Your task to perform on an android device: Go to Android settings Image 0: 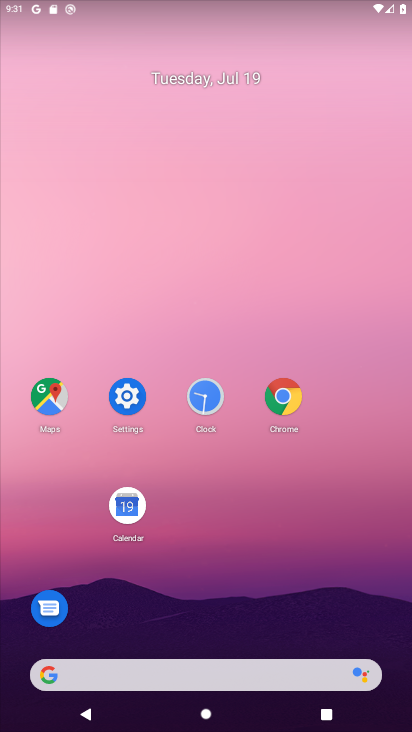
Step 0: click (131, 396)
Your task to perform on an android device: Go to Android settings Image 1: 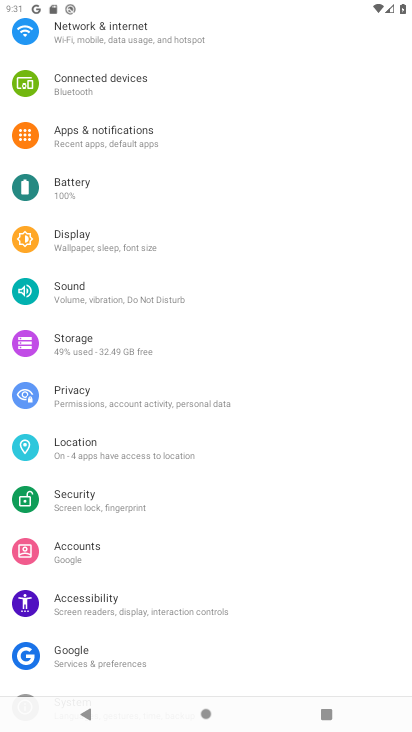
Step 1: task complete